Your task to perform on an android device: Open network settings Image 0: 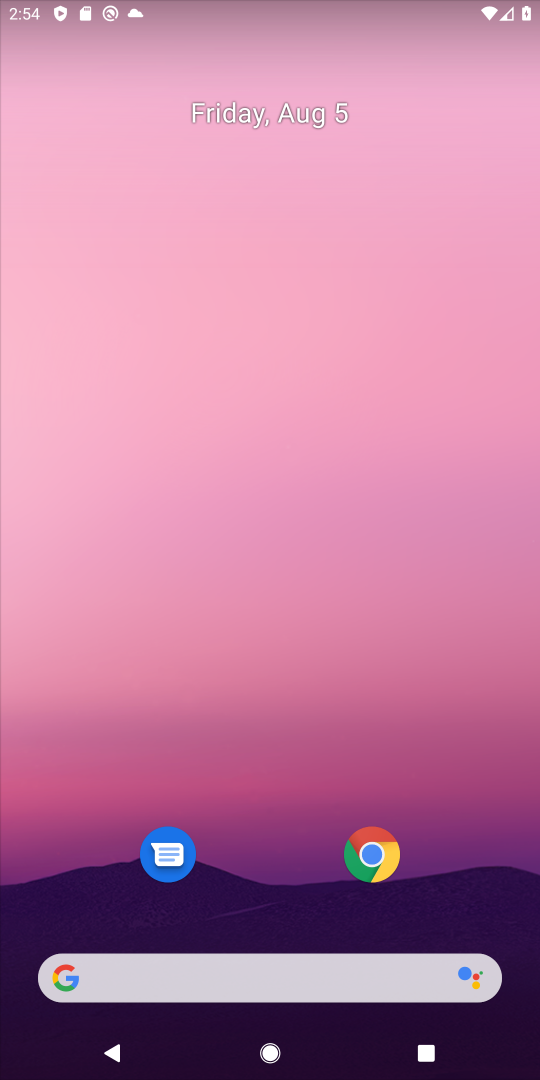
Step 0: drag from (82, 1029) to (254, 190)
Your task to perform on an android device: Open network settings Image 1: 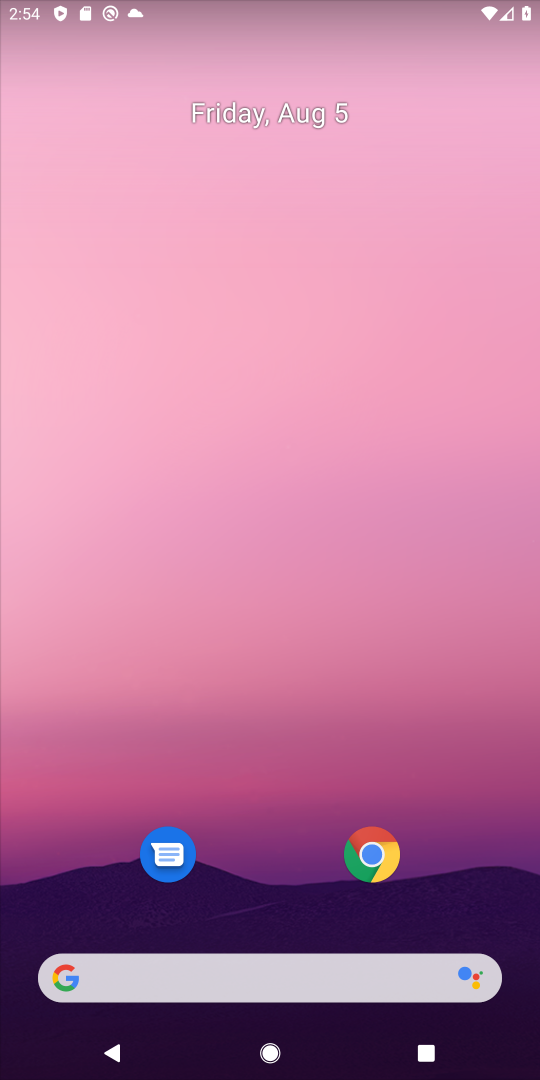
Step 1: drag from (67, 1034) to (232, 372)
Your task to perform on an android device: Open network settings Image 2: 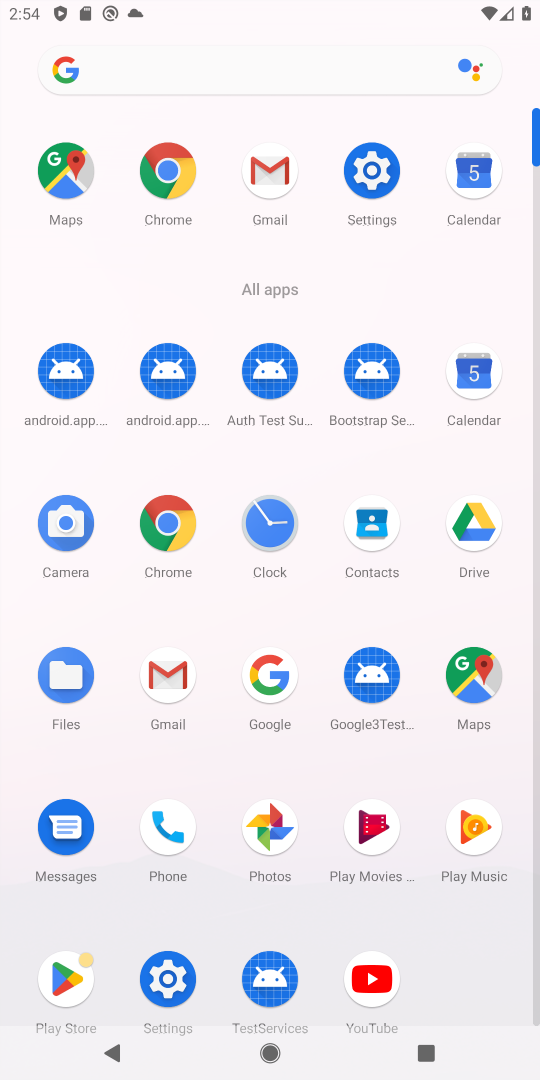
Step 2: click (168, 1001)
Your task to perform on an android device: Open network settings Image 3: 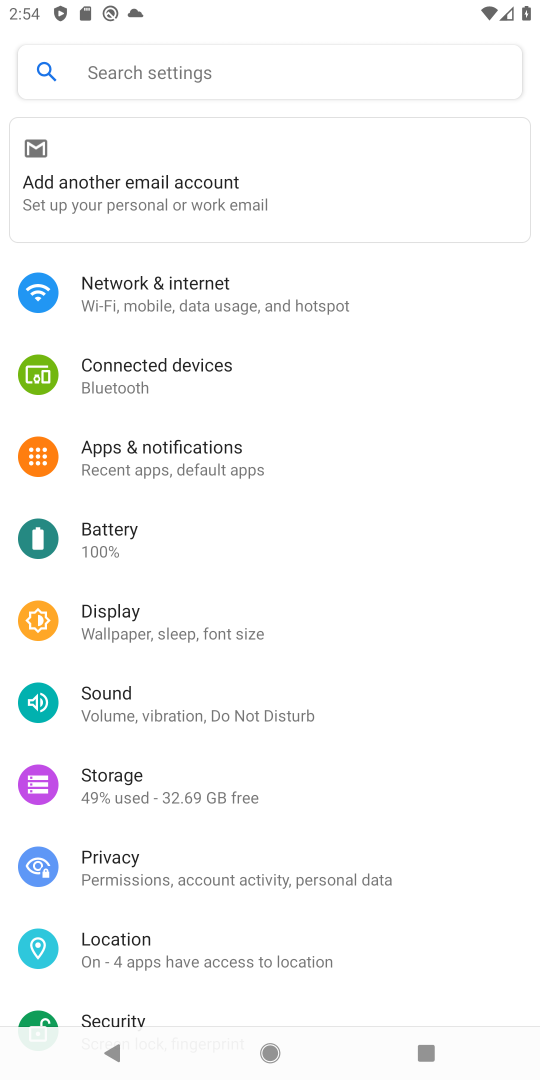
Step 3: click (160, 294)
Your task to perform on an android device: Open network settings Image 4: 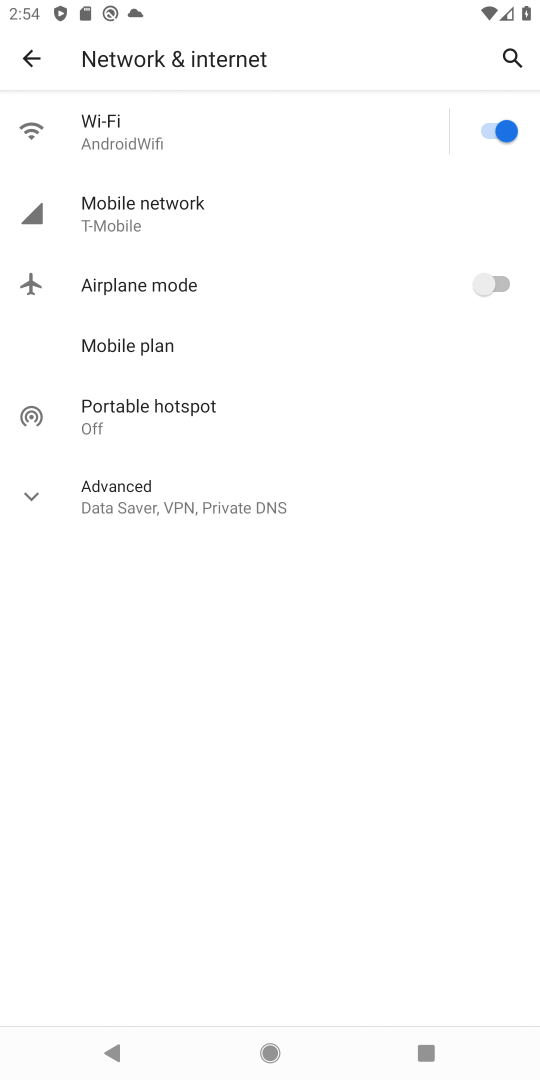
Step 4: task complete